Your task to perform on an android device: check android version Image 0: 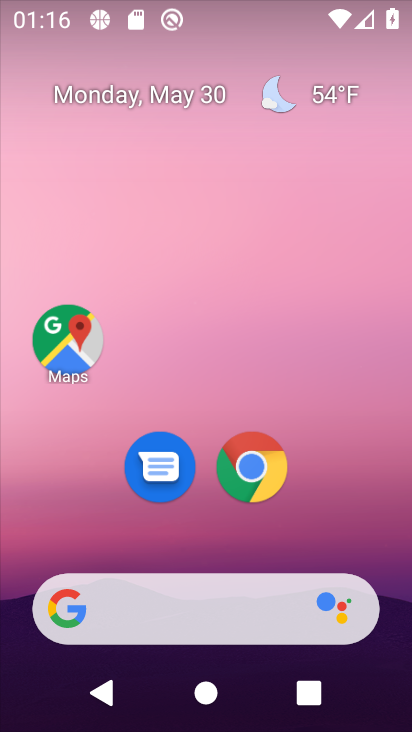
Step 0: drag from (184, 559) to (189, 1)
Your task to perform on an android device: check android version Image 1: 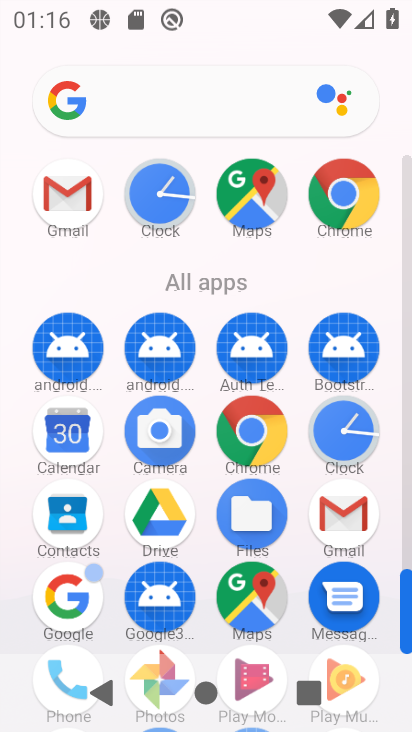
Step 1: drag from (212, 571) to (212, 94)
Your task to perform on an android device: check android version Image 2: 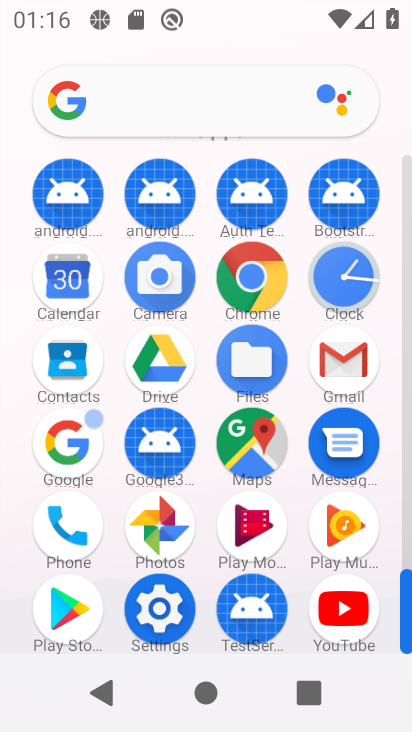
Step 2: click (156, 597)
Your task to perform on an android device: check android version Image 3: 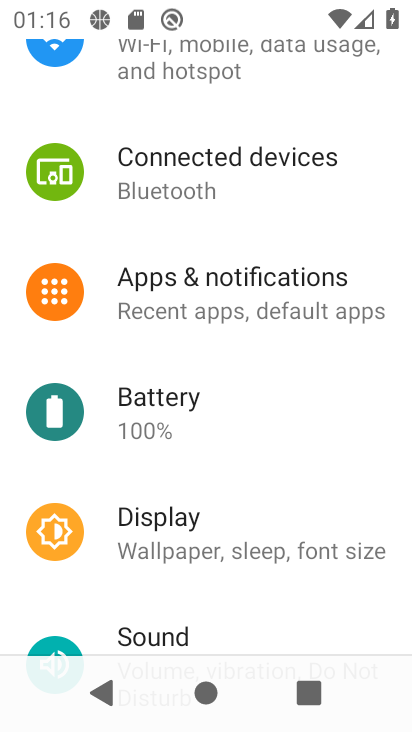
Step 3: drag from (266, 563) to (263, 34)
Your task to perform on an android device: check android version Image 4: 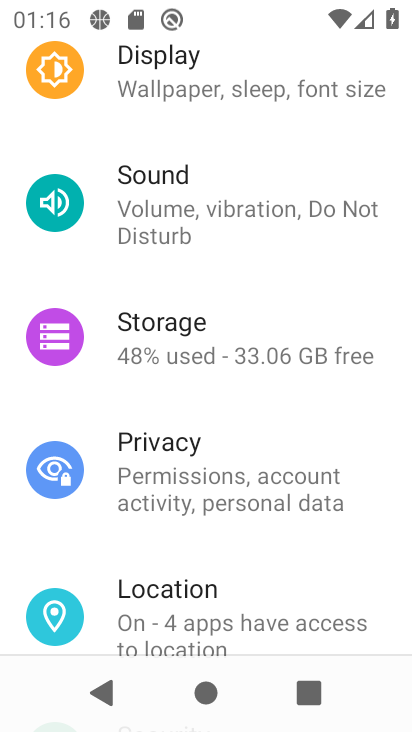
Step 4: drag from (208, 591) to (177, 68)
Your task to perform on an android device: check android version Image 5: 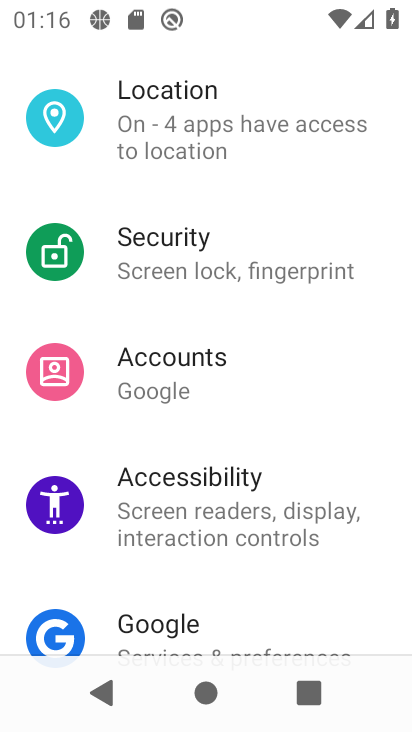
Step 5: drag from (194, 560) to (181, 29)
Your task to perform on an android device: check android version Image 6: 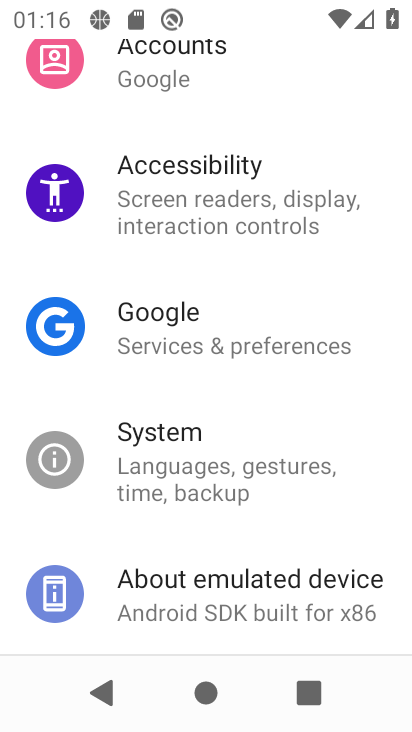
Step 6: click (246, 568)
Your task to perform on an android device: check android version Image 7: 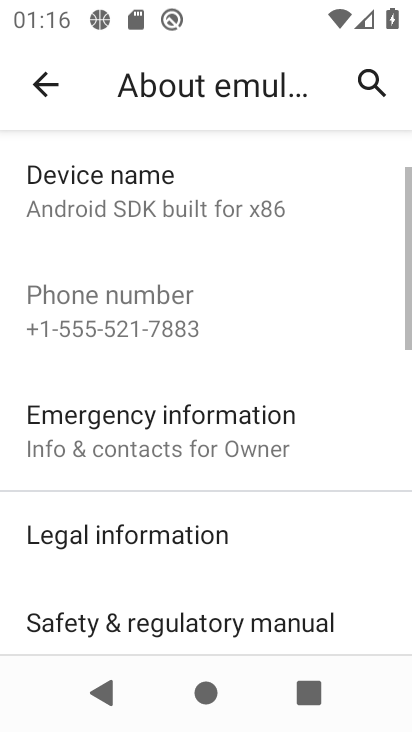
Step 7: drag from (184, 533) to (157, 80)
Your task to perform on an android device: check android version Image 8: 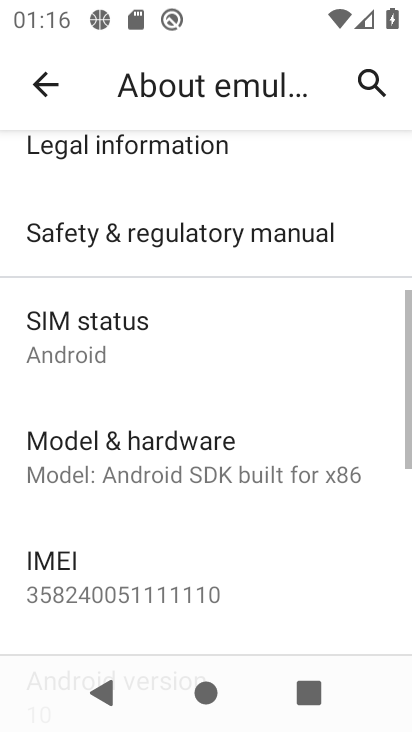
Step 8: drag from (243, 527) to (219, 120)
Your task to perform on an android device: check android version Image 9: 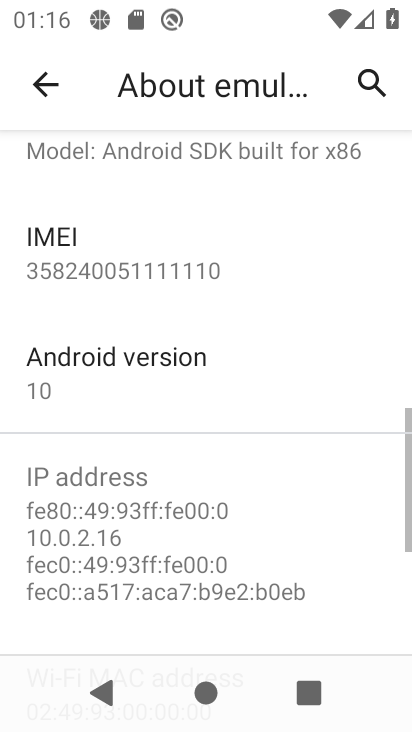
Step 9: drag from (196, 551) to (197, 475)
Your task to perform on an android device: check android version Image 10: 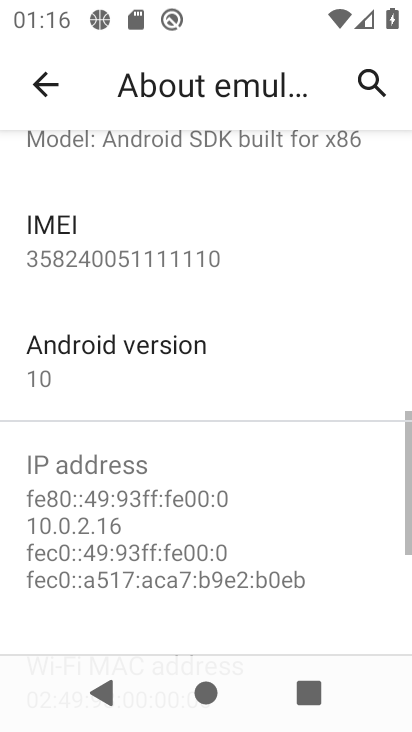
Step 10: click (144, 390)
Your task to perform on an android device: check android version Image 11: 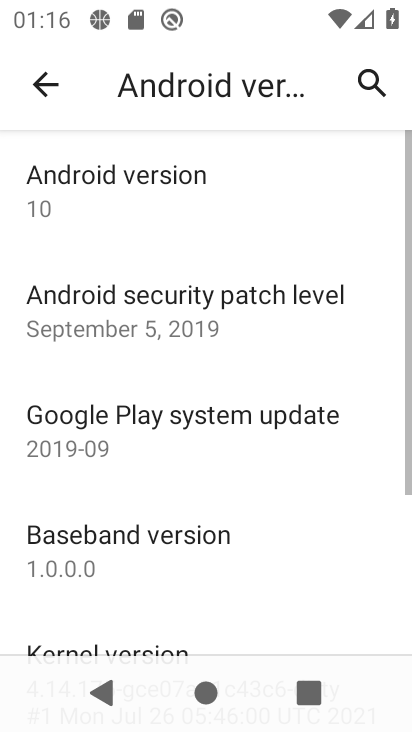
Step 11: task complete